Your task to perform on an android device: turn on bluetooth scan Image 0: 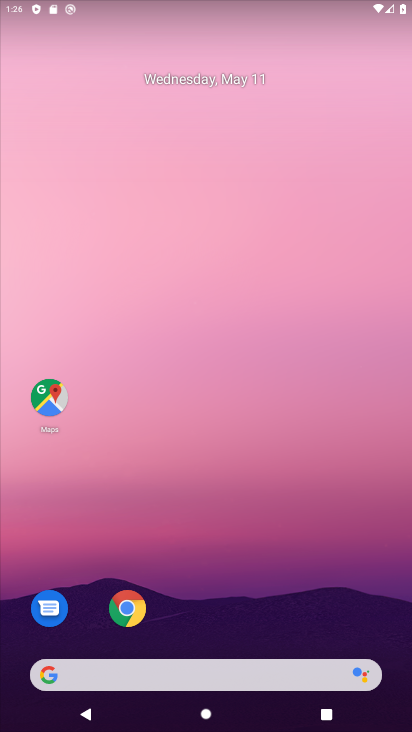
Step 0: drag from (294, 611) to (157, 114)
Your task to perform on an android device: turn on bluetooth scan Image 1: 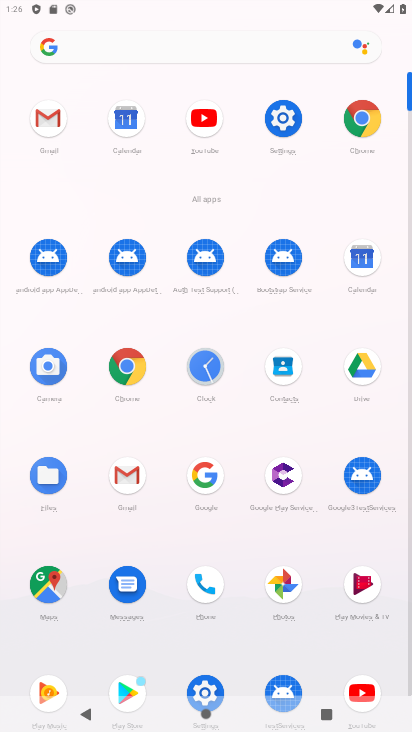
Step 1: click (285, 117)
Your task to perform on an android device: turn on bluetooth scan Image 2: 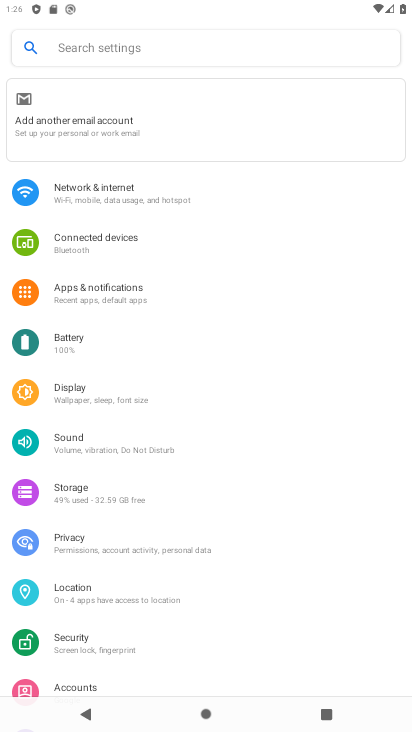
Step 2: click (129, 596)
Your task to perform on an android device: turn on bluetooth scan Image 3: 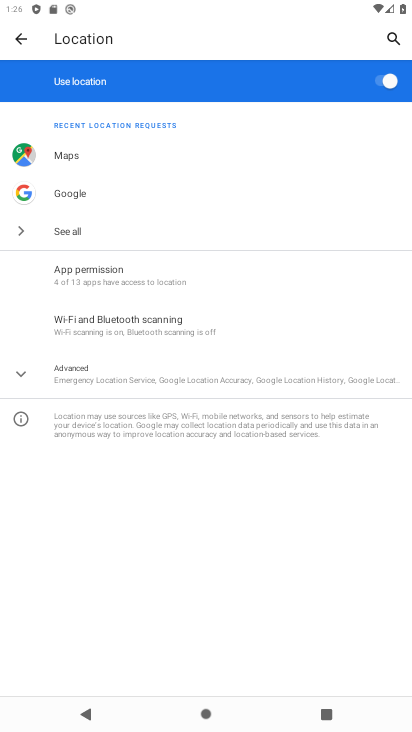
Step 3: click (147, 333)
Your task to perform on an android device: turn on bluetooth scan Image 4: 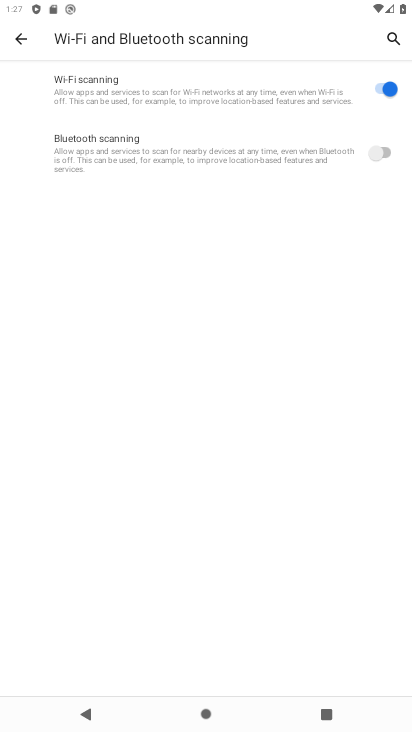
Step 4: click (389, 152)
Your task to perform on an android device: turn on bluetooth scan Image 5: 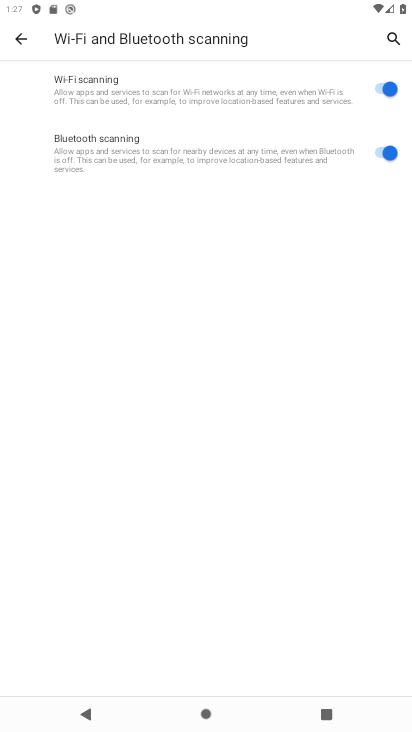
Step 5: task complete